Your task to perform on an android device: check the backup settings in the google photos Image 0: 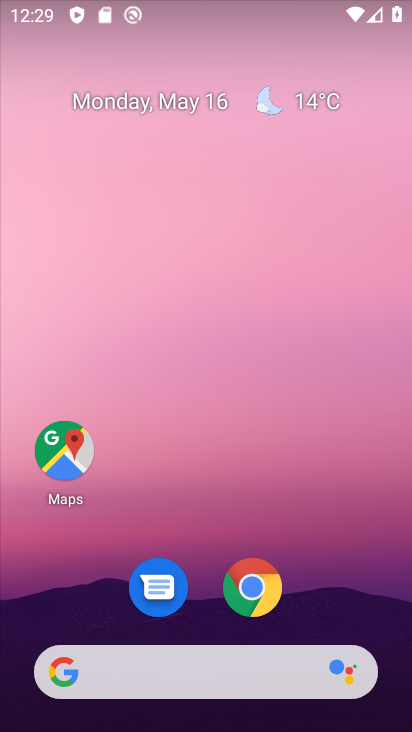
Step 0: drag from (214, 725) to (228, 203)
Your task to perform on an android device: check the backup settings in the google photos Image 1: 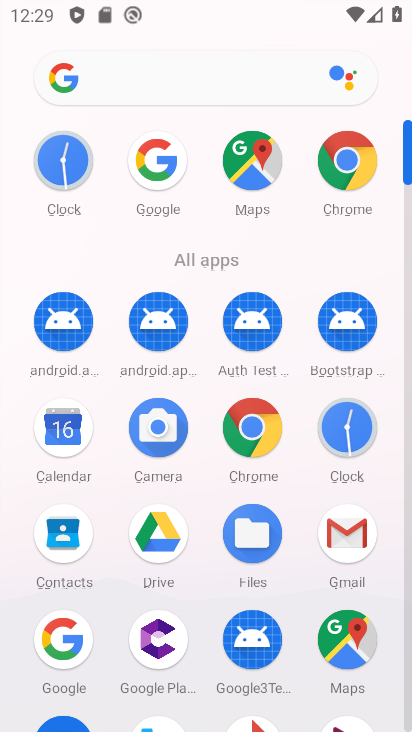
Step 1: drag from (206, 612) to (220, 238)
Your task to perform on an android device: check the backup settings in the google photos Image 2: 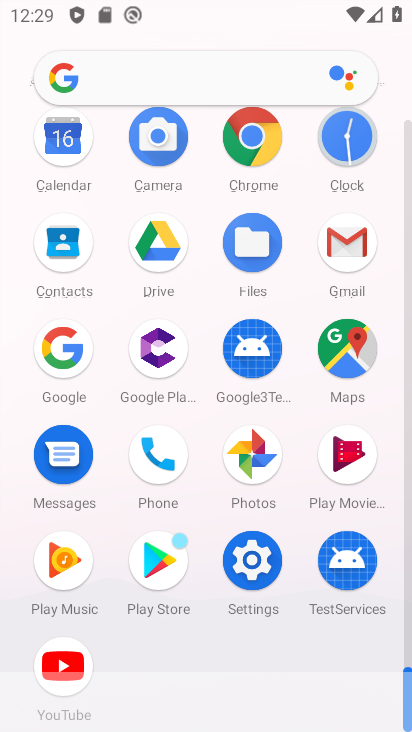
Step 2: click (256, 460)
Your task to perform on an android device: check the backup settings in the google photos Image 3: 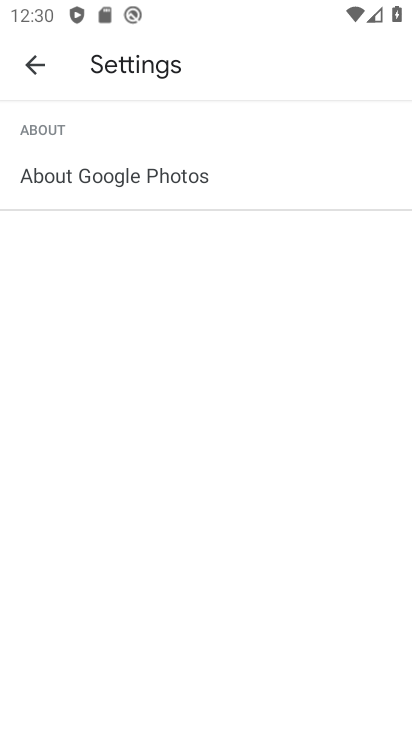
Step 3: click (32, 53)
Your task to perform on an android device: check the backup settings in the google photos Image 4: 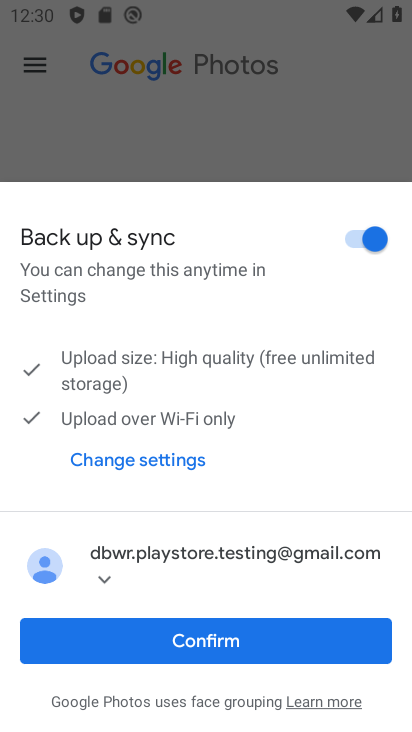
Step 4: click (205, 643)
Your task to perform on an android device: check the backup settings in the google photos Image 5: 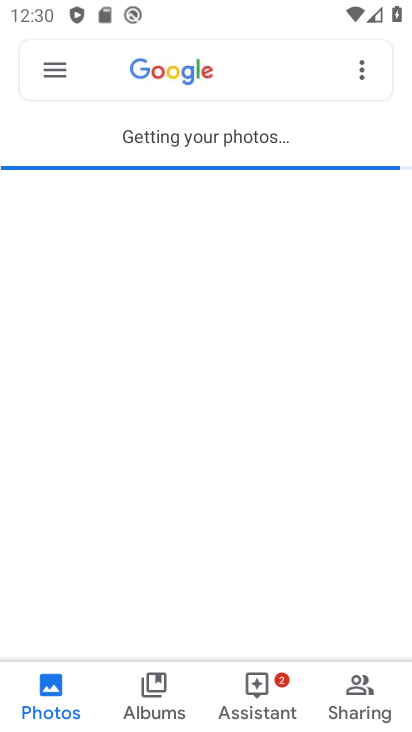
Step 5: click (58, 70)
Your task to perform on an android device: check the backup settings in the google photos Image 6: 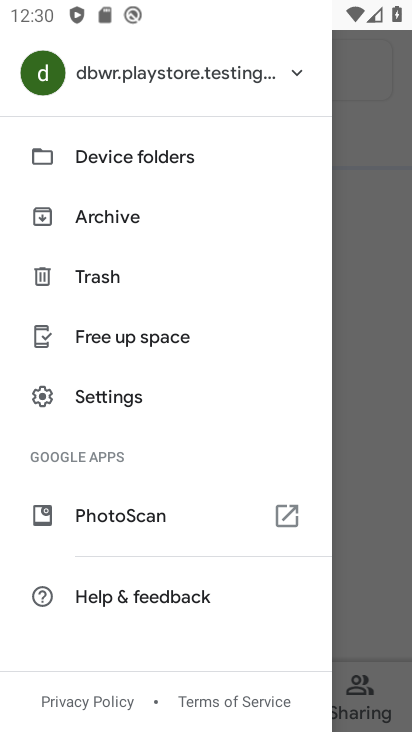
Step 6: click (103, 394)
Your task to perform on an android device: check the backup settings in the google photos Image 7: 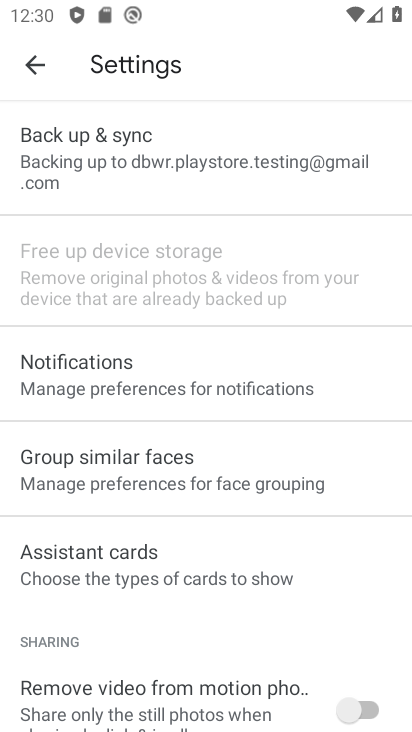
Step 7: click (51, 149)
Your task to perform on an android device: check the backup settings in the google photos Image 8: 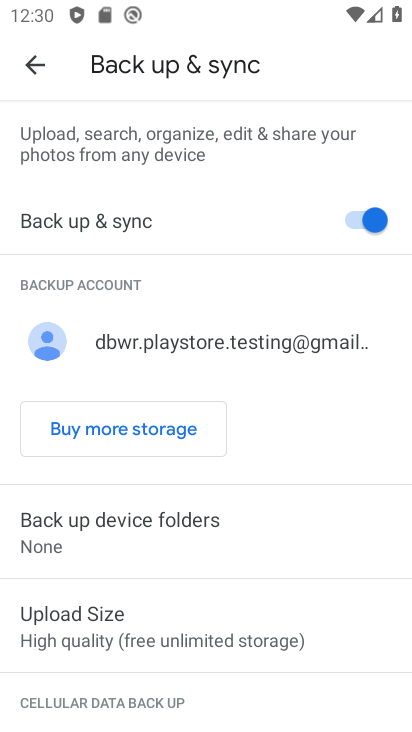
Step 8: task complete